Your task to perform on an android device: open device folders in google photos Image 0: 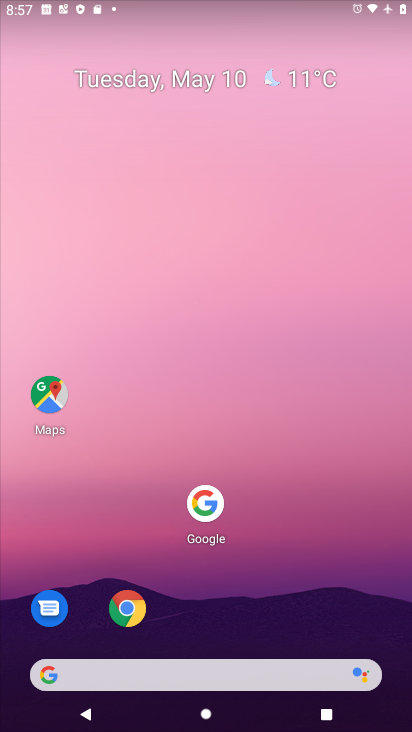
Step 0: drag from (138, 676) to (290, 440)
Your task to perform on an android device: open device folders in google photos Image 1: 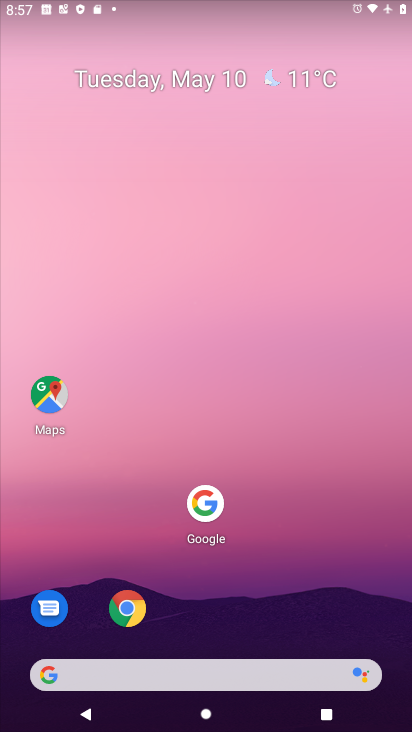
Step 1: drag from (145, 676) to (271, 350)
Your task to perform on an android device: open device folders in google photos Image 2: 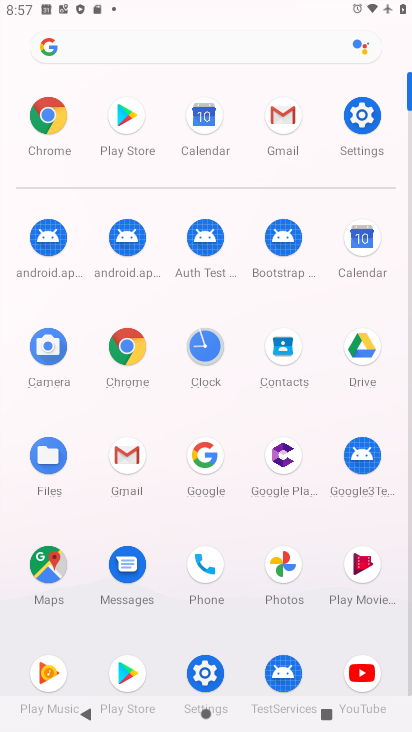
Step 2: click (283, 571)
Your task to perform on an android device: open device folders in google photos Image 3: 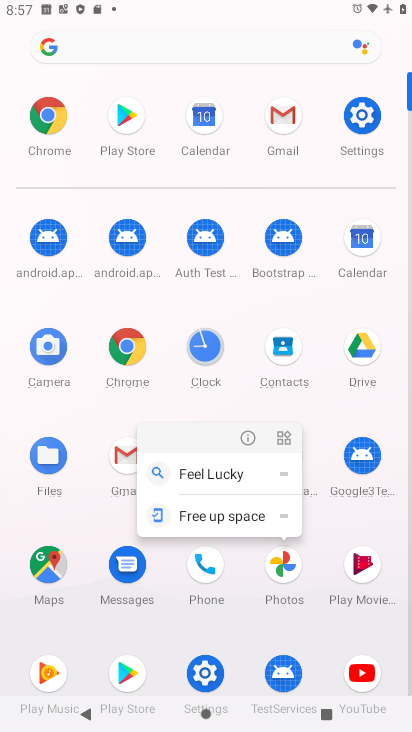
Step 3: click (282, 563)
Your task to perform on an android device: open device folders in google photos Image 4: 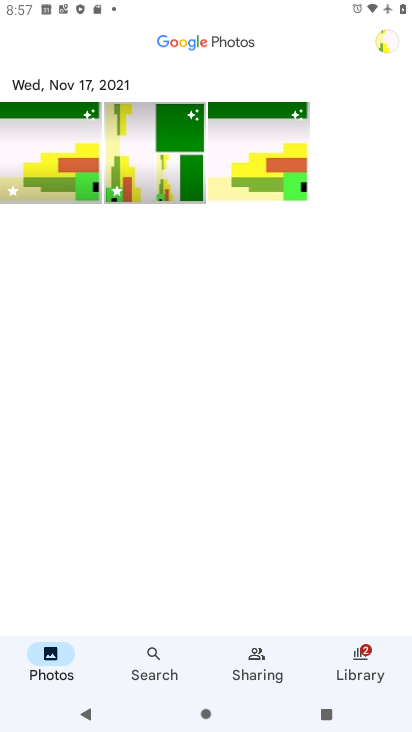
Step 4: click (361, 673)
Your task to perform on an android device: open device folders in google photos Image 5: 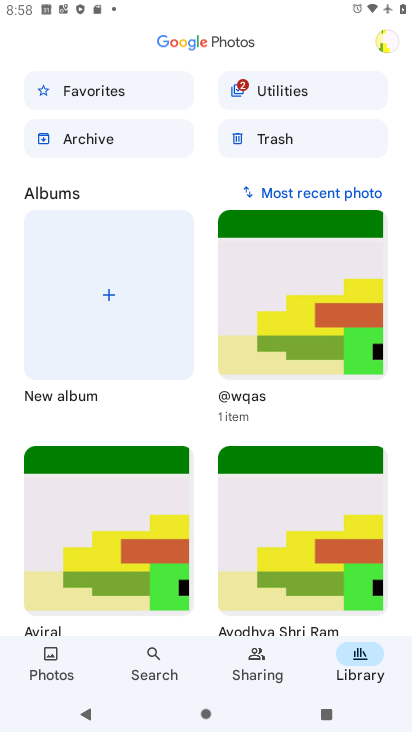
Step 5: task complete